Your task to perform on an android device: read, delete, or share a saved page in the chrome app Image 0: 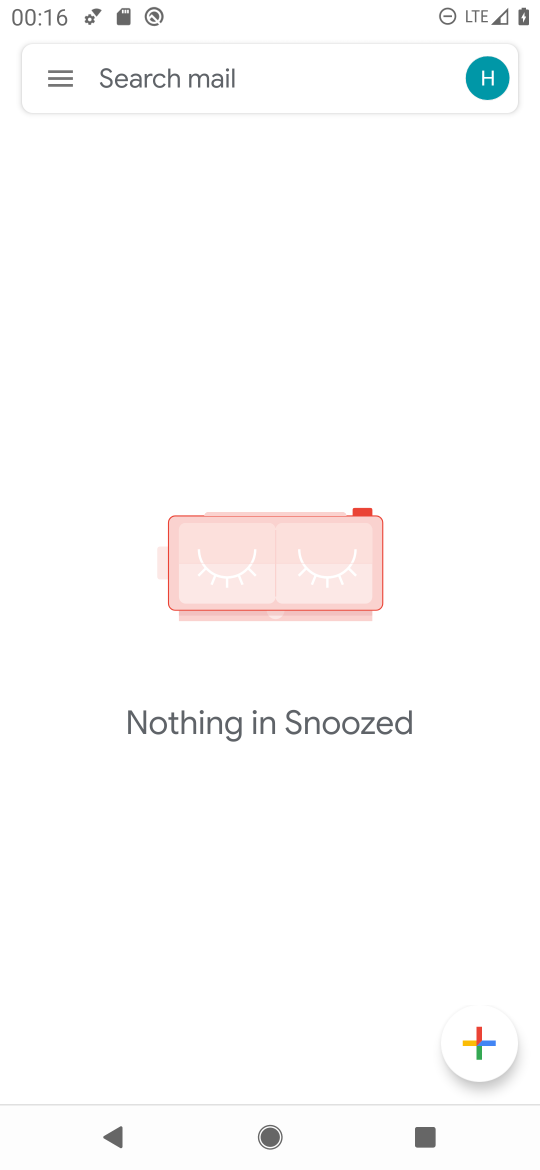
Step 0: press home button
Your task to perform on an android device: read, delete, or share a saved page in the chrome app Image 1: 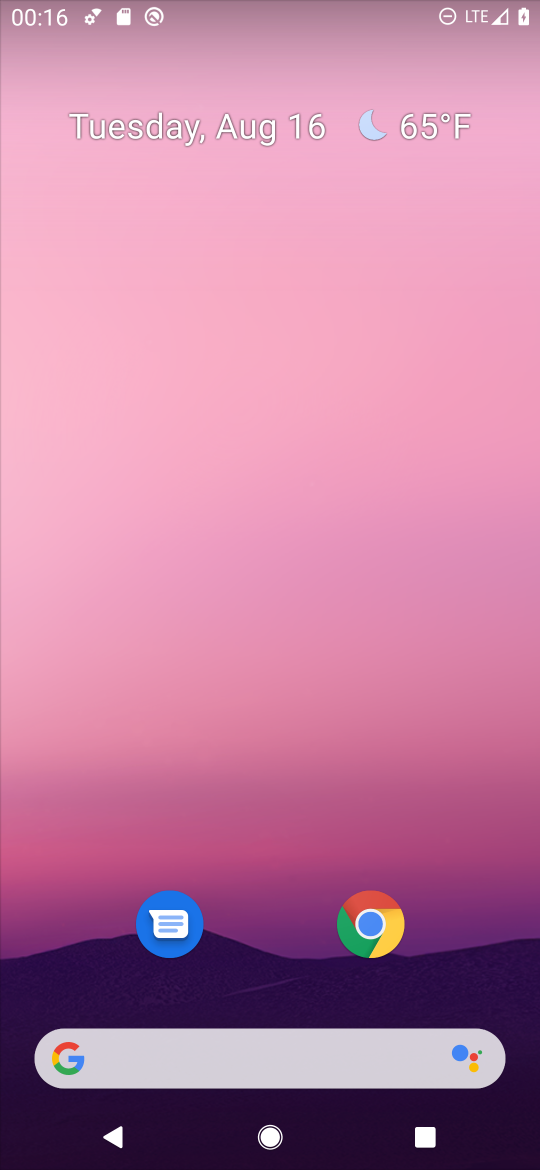
Step 1: click (378, 924)
Your task to perform on an android device: read, delete, or share a saved page in the chrome app Image 2: 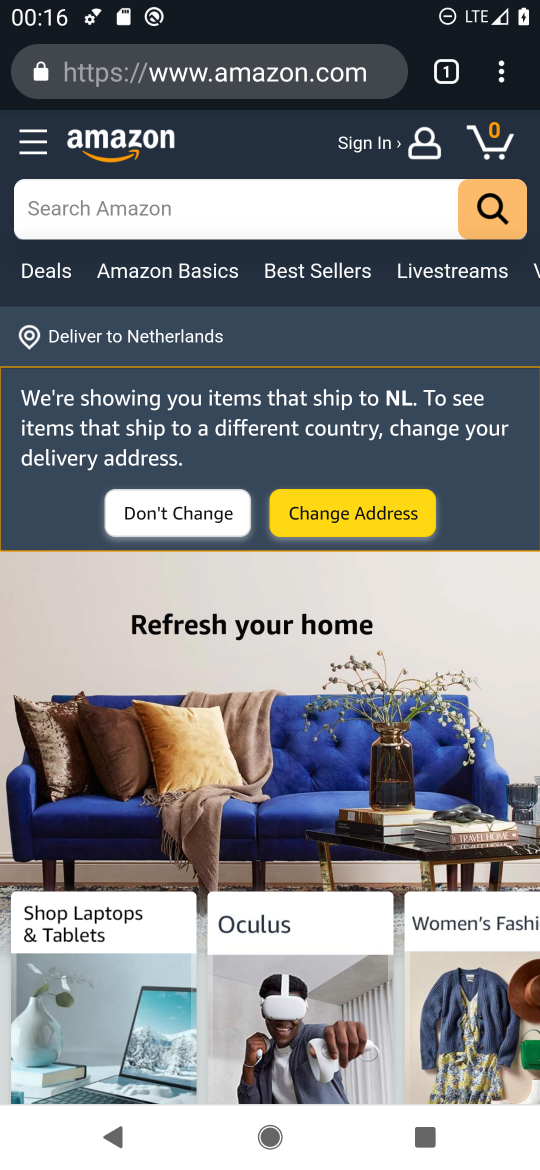
Step 2: click (508, 64)
Your task to perform on an android device: read, delete, or share a saved page in the chrome app Image 3: 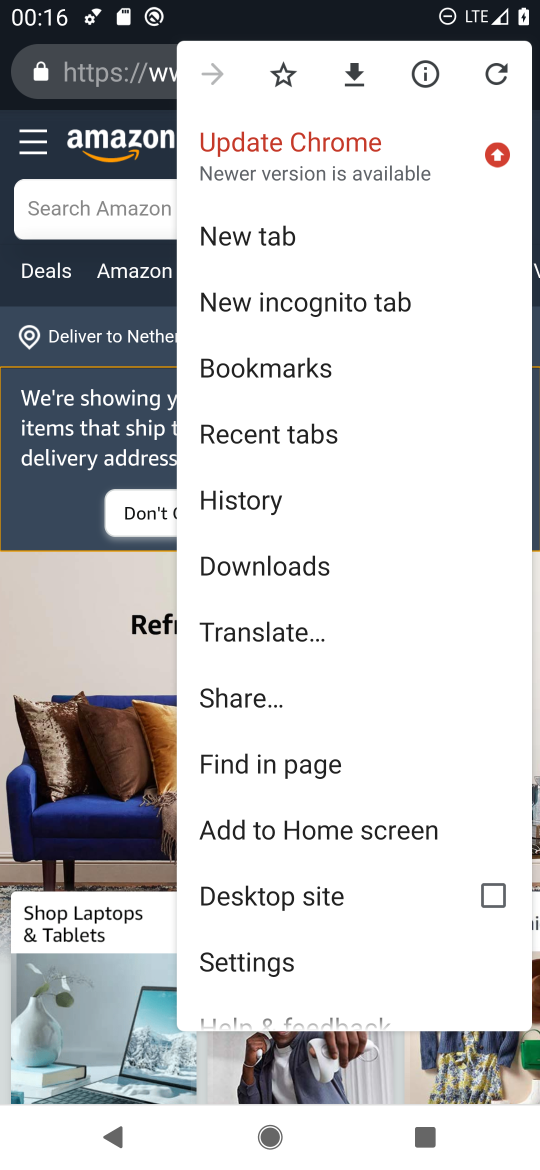
Step 3: click (318, 559)
Your task to perform on an android device: read, delete, or share a saved page in the chrome app Image 4: 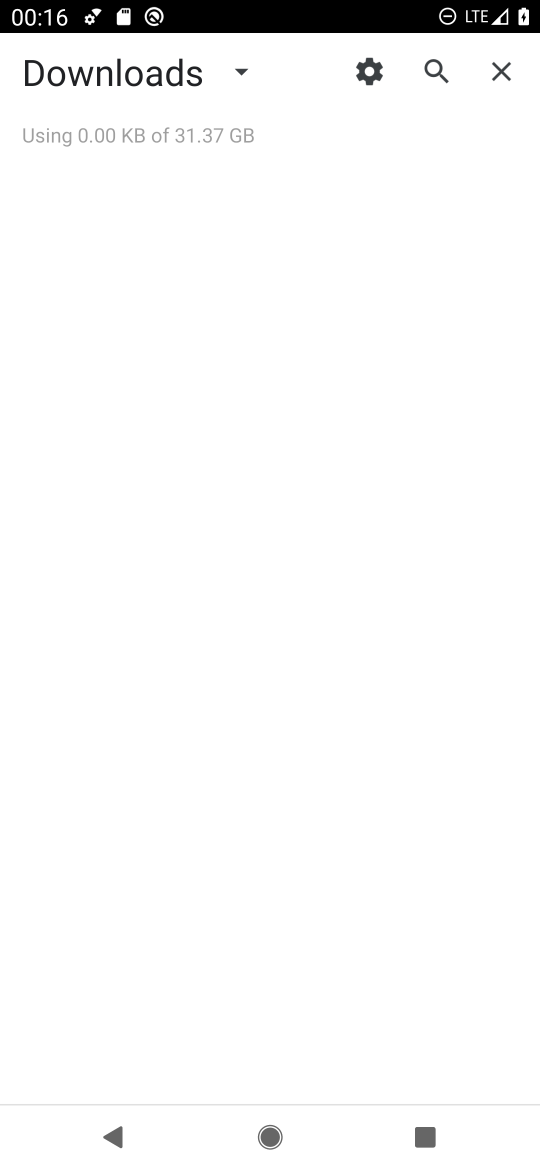
Step 4: click (318, 559)
Your task to perform on an android device: read, delete, or share a saved page in the chrome app Image 5: 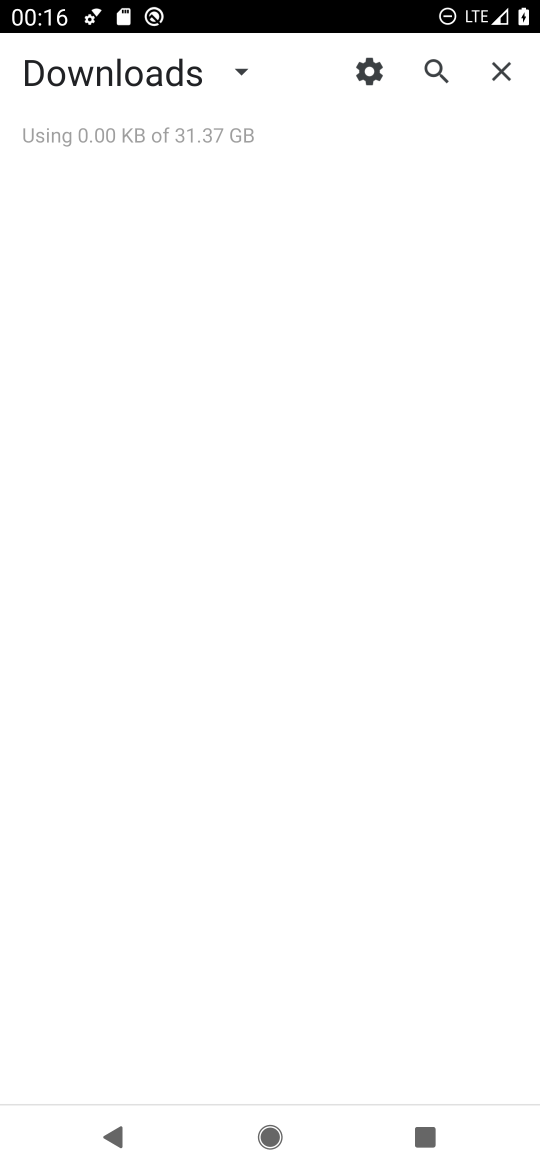
Step 5: task complete